Your task to perform on an android device: Clear all items from cart on costco. Image 0: 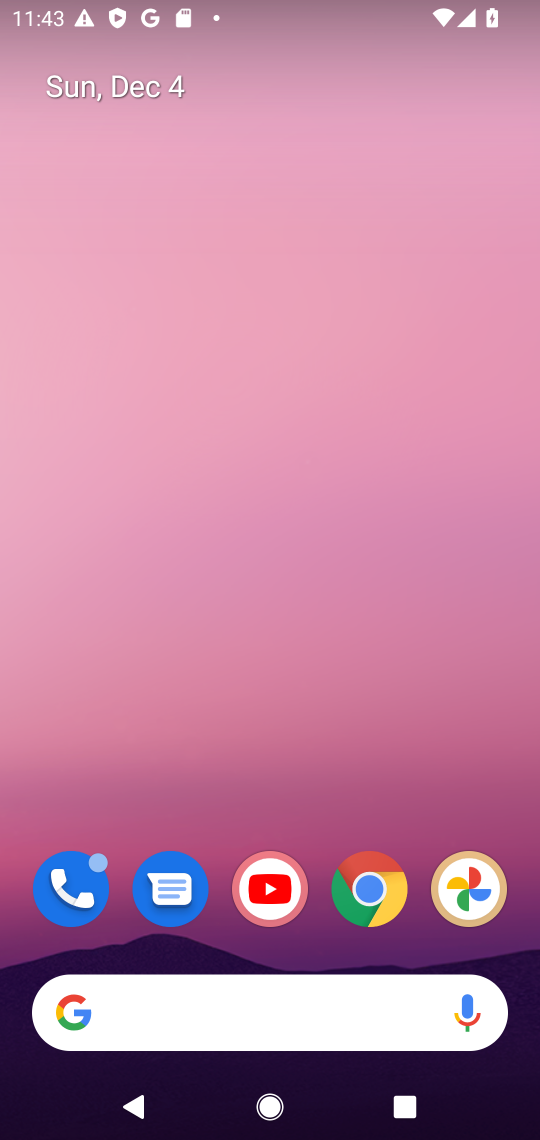
Step 0: click (537, 926)
Your task to perform on an android device: Clear all items from cart on costco. Image 1: 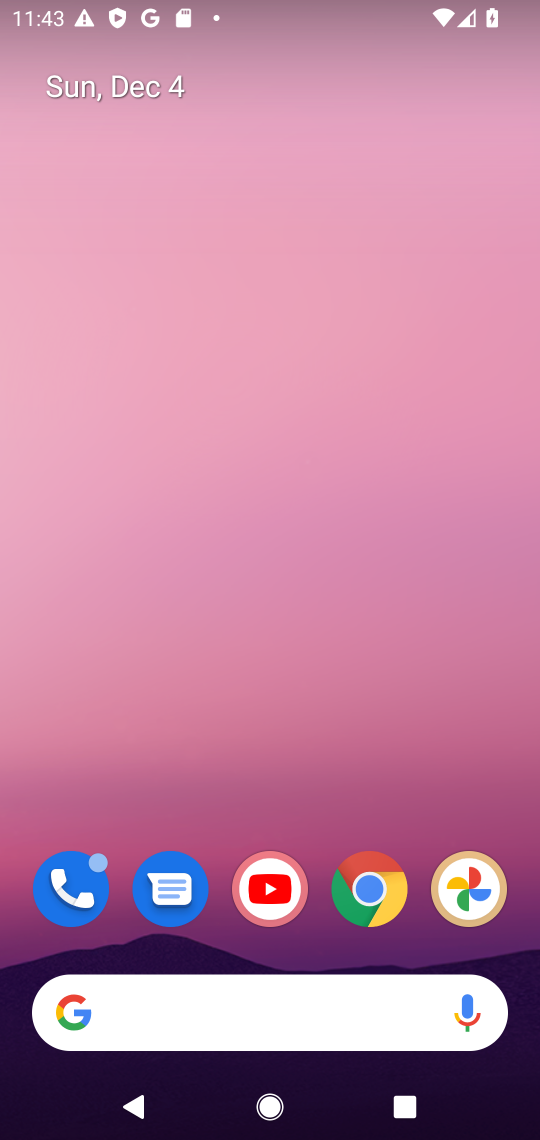
Step 1: click (384, 891)
Your task to perform on an android device: Clear all items from cart on costco. Image 2: 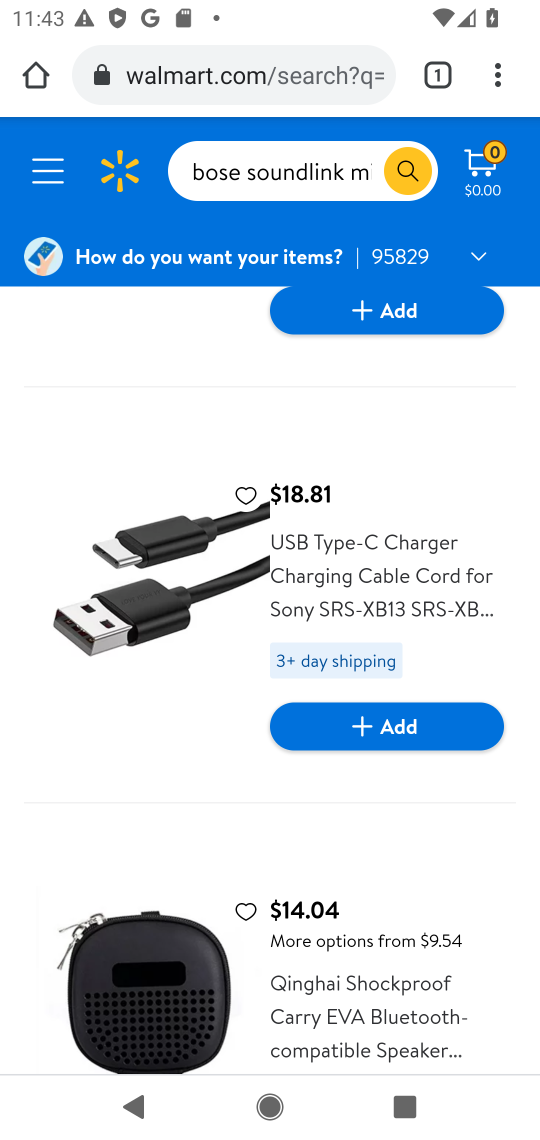
Step 2: click (297, 65)
Your task to perform on an android device: Clear all items from cart on costco. Image 3: 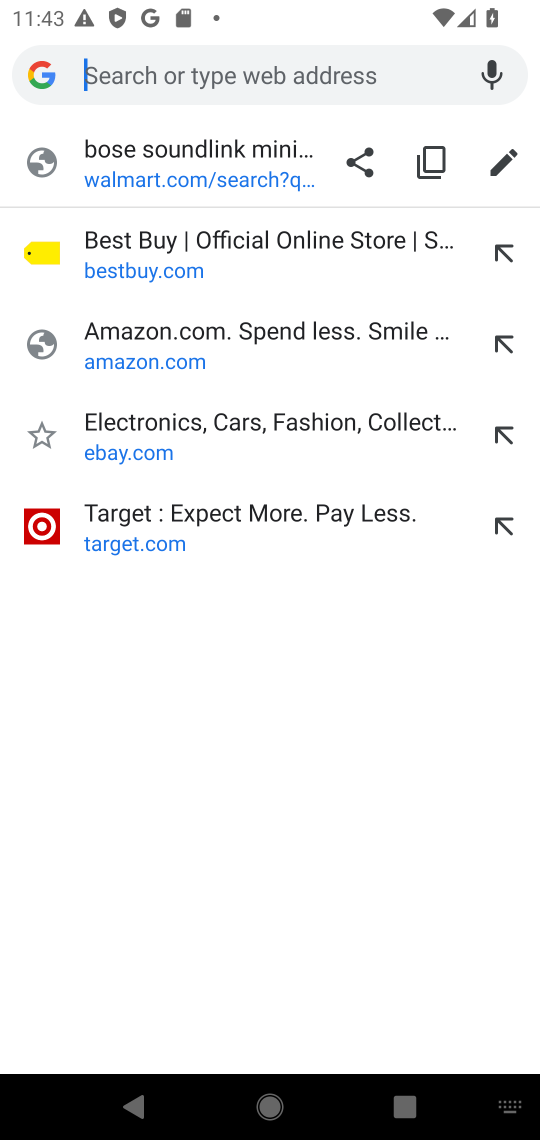
Step 3: type "costco"
Your task to perform on an android device: Clear all items from cart on costco. Image 4: 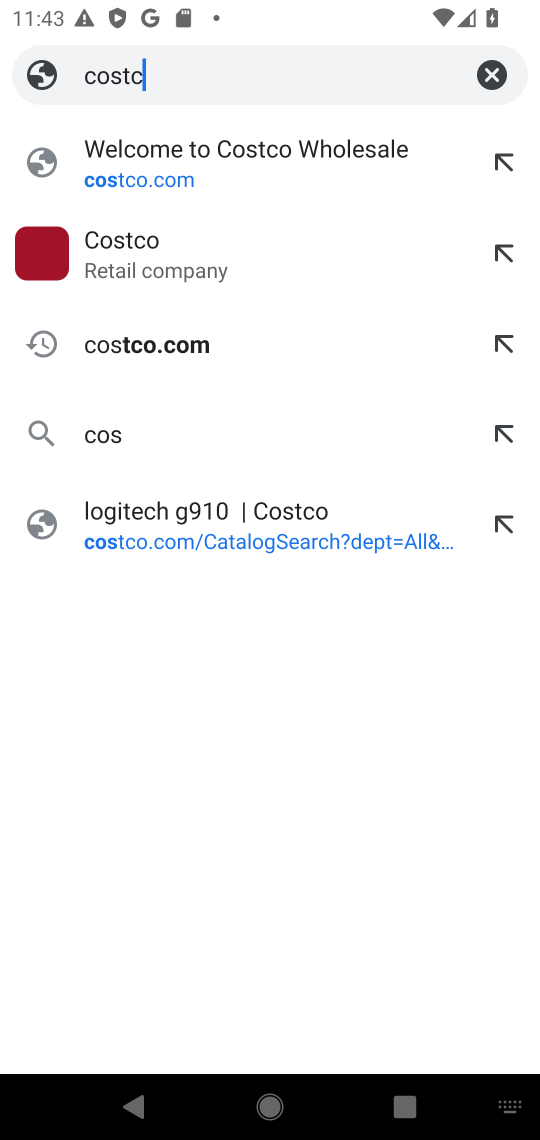
Step 4: press enter
Your task to perform on an android device: Clear all items from cart on costco. Image 5: 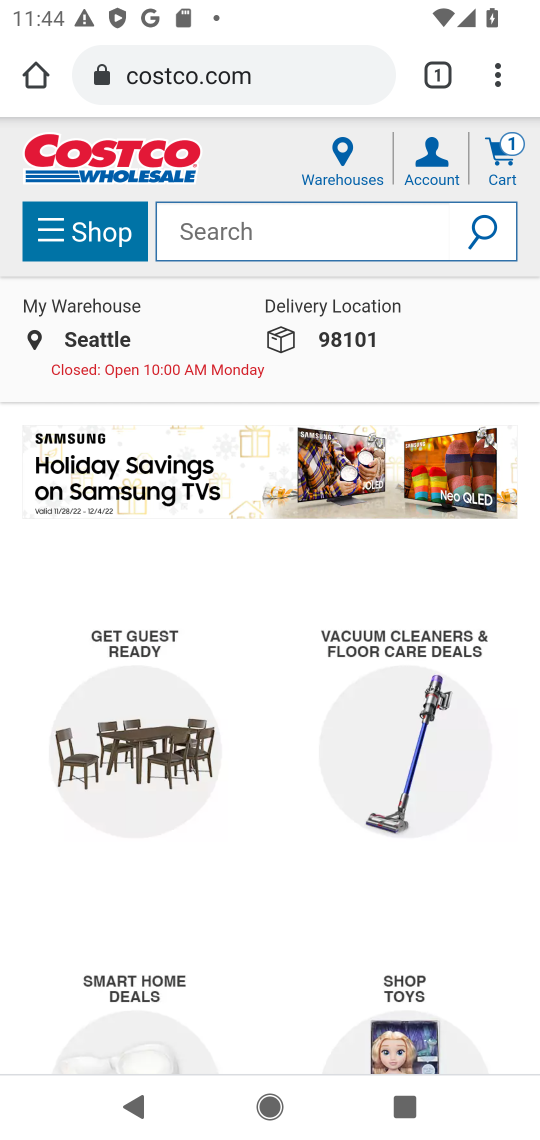
Step 5: click (513, 161)
Your task to perform on an android device: Clear all items from cart on costco. Image 6: 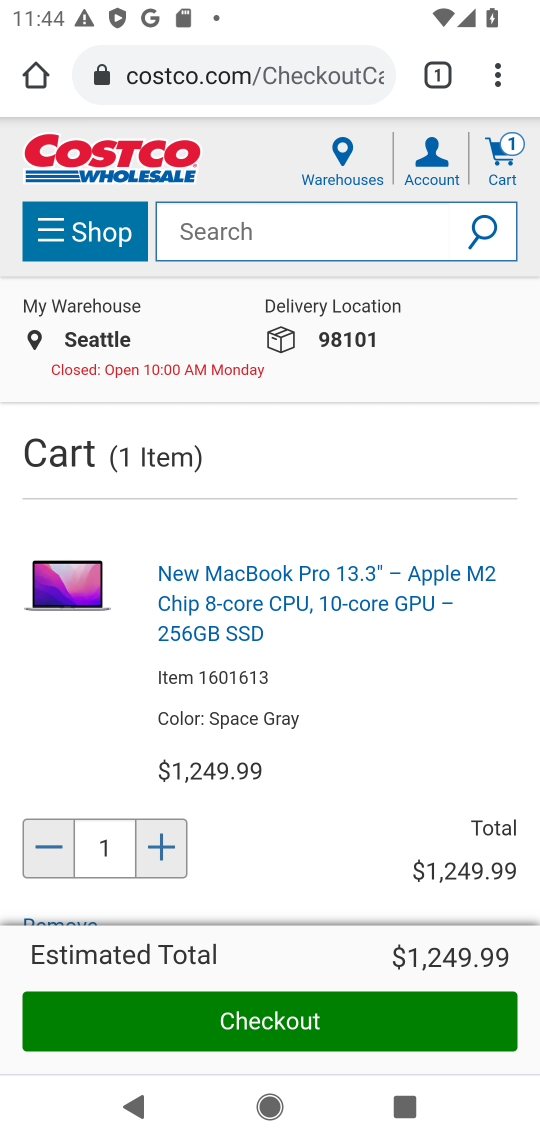
Step 6: drag from (366, 782) to (399, 360)
Your task to perform on an android device: Clear all items from cart on costco. Image 7: 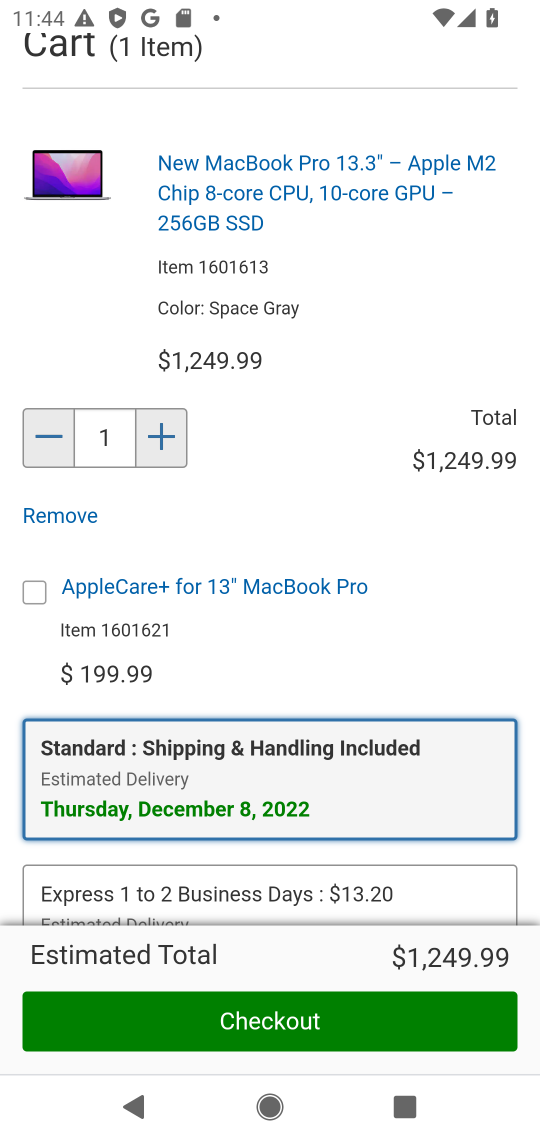
Step 7: click (63, 510)
Your task to perform on an android device: Clear all items from cart on costco. Image 8: 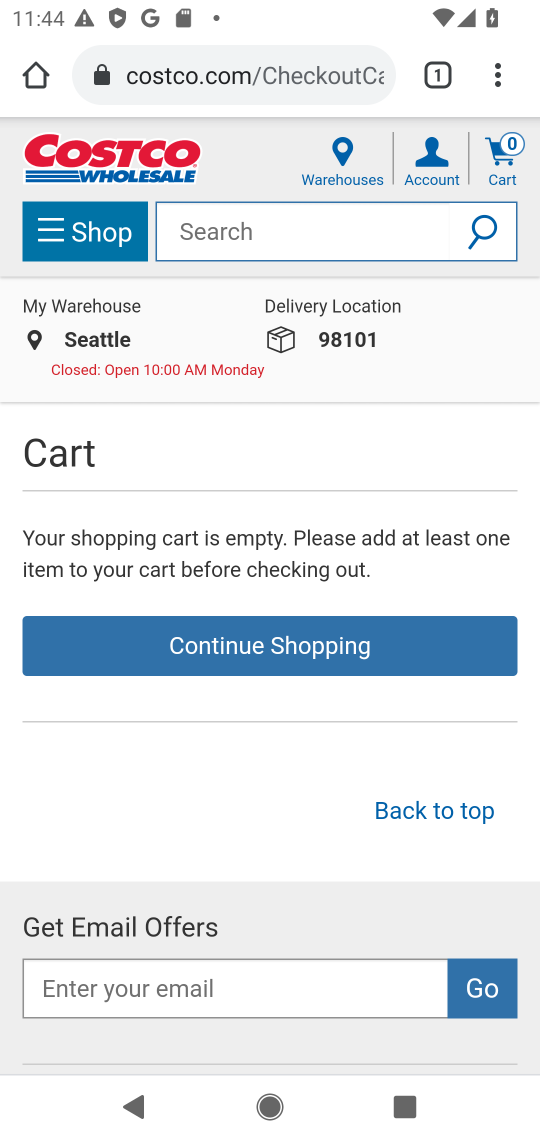
Step 8: task complete